Your task to perform on an android device: change the upload size in google photos Image 0: 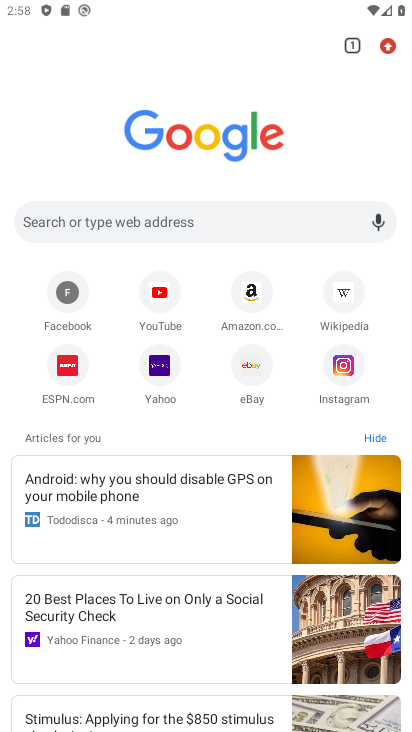
Step 0: press home button
Your task to perform on an android device: change the upload size in google photos Image 1: 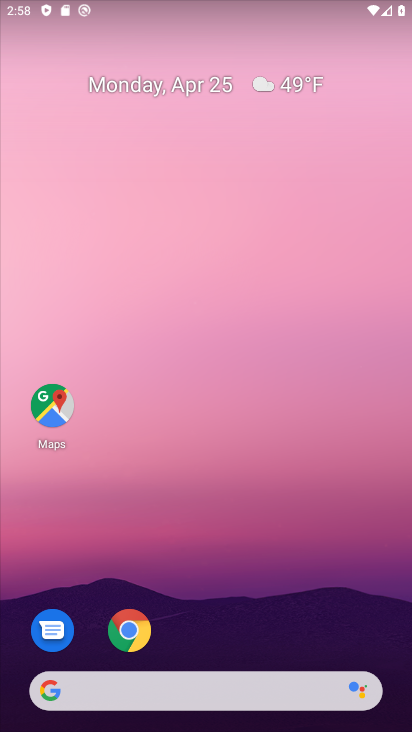
Step 1: drag from (217, 622) to (241, 13)
Your task to perform on an android device: change the upload size in google photos Image 2: 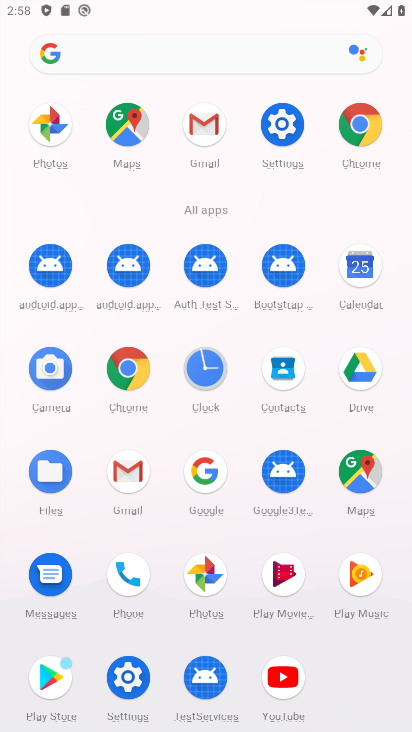
Step 2: click (51, 121)
Your task to perform on an android device: change the upload size in google photos Image 3: 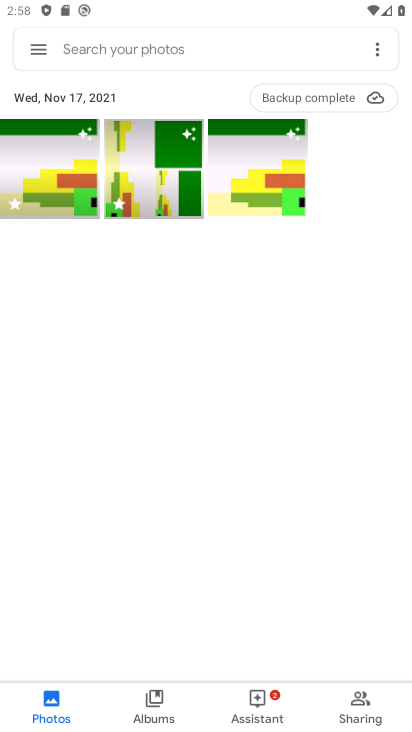
Step 3: click (40, 52)
Your task to perform on an android device: change the upload size in google photos Image 4: 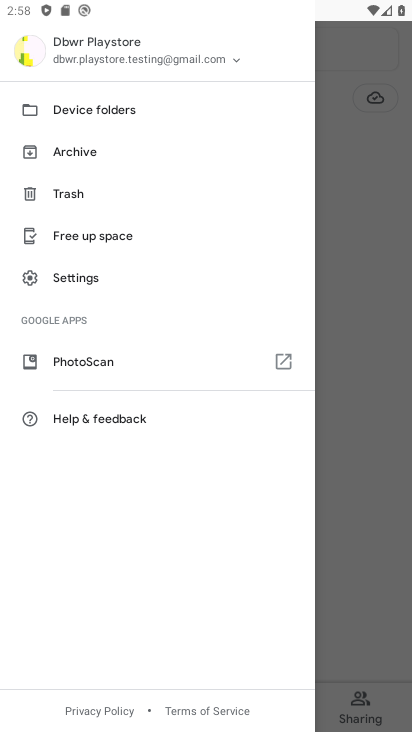
Step 4: click (111, 269)
Your task to perform on an android device: change the upload size in google photos Image 5: 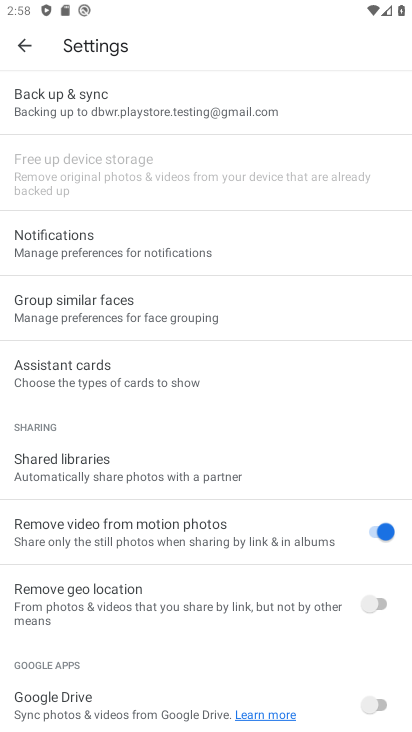
Step 5: click (125, 90)
Your task to perform on an android device: change the upload size in google photos Image 6: 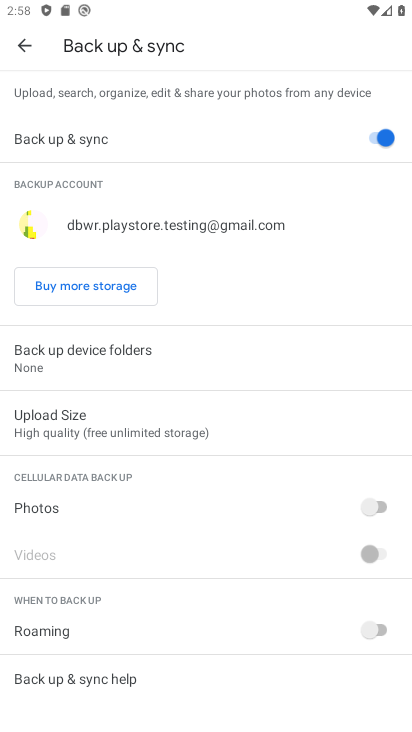
Step 6: click (115, 413)
Your task to perform on an android device: change the upload size in google photos Image 7: 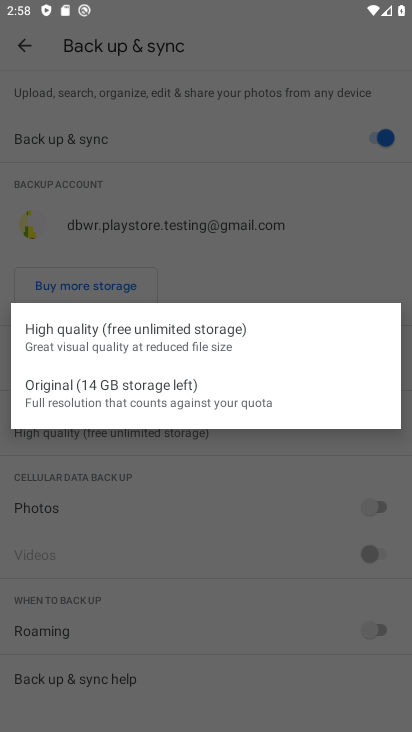
Step 7: click (119, 393)
Your task to perform on an android device: change the upload size in google photos Image 8: 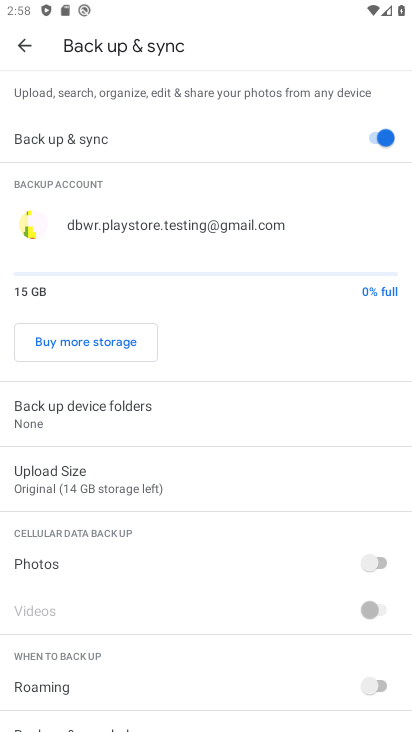
Step 8: task complete